Your task to perform on an android device: Open settings Image 0: 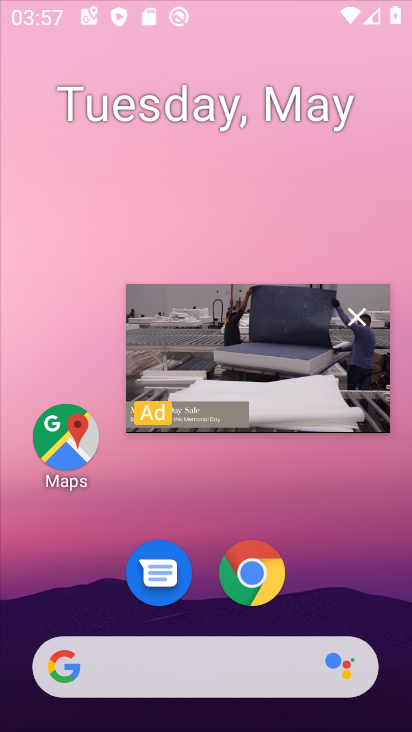
Step 0: click (226, 328)
Your task to perform on an android device: Open settings Image 1: 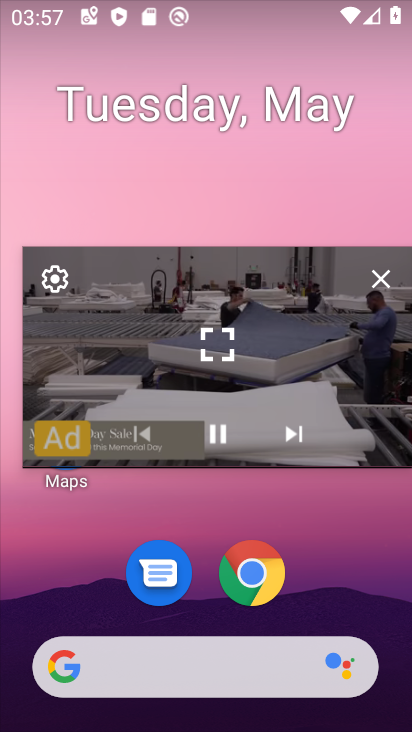
Step 1: click (262, 342)
Your task to perform on an android device: Open settings Image 2: 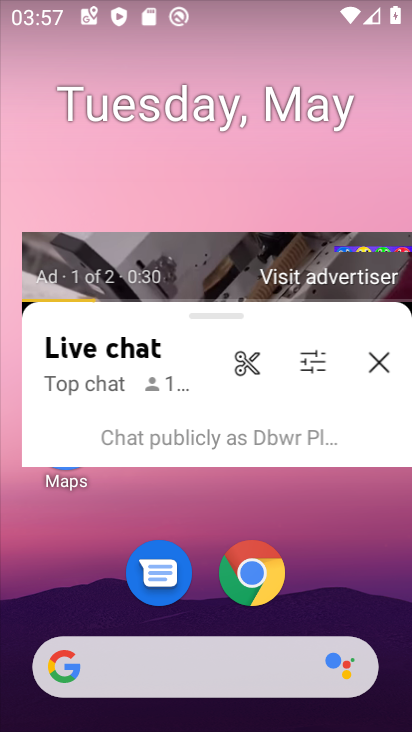
Step 2: click (231, 328)
Your task to perform on an android device: Open settings Image 3: 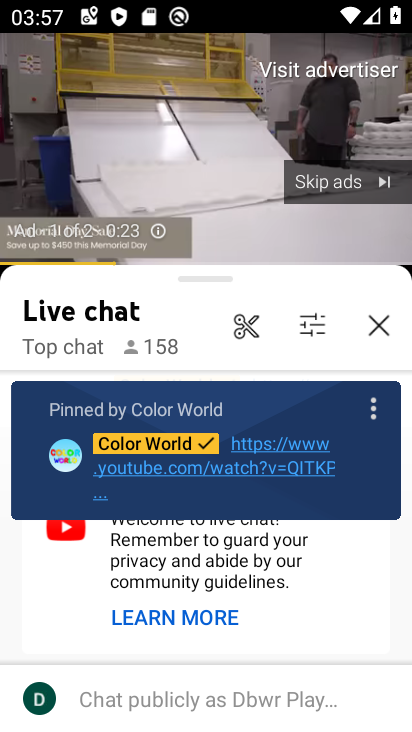
Step 3: click (140, 186)
Your task to perform on an android device: Open settings Image 4: 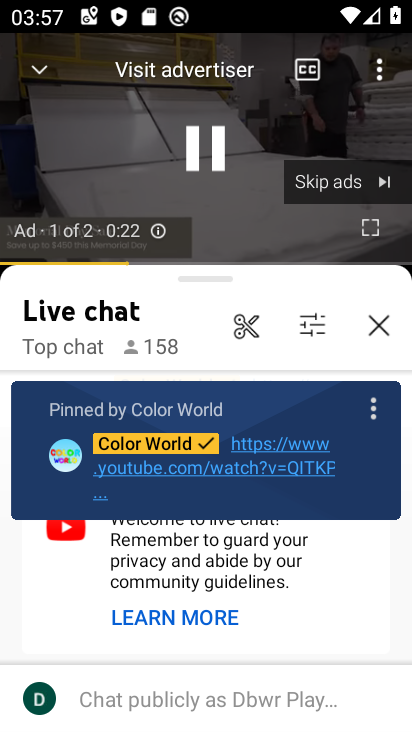
Step 4: click (210, 148)
Your task to perform on an android device: Open settings Image 5: 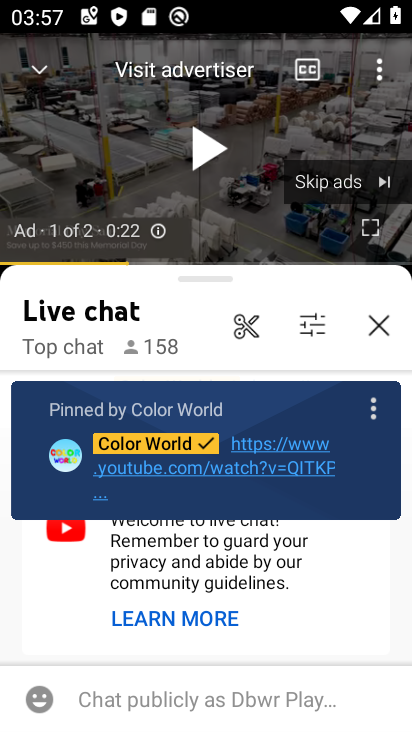
Step 5: press home button
Your task to perform on an android device: Open settings Image 6: 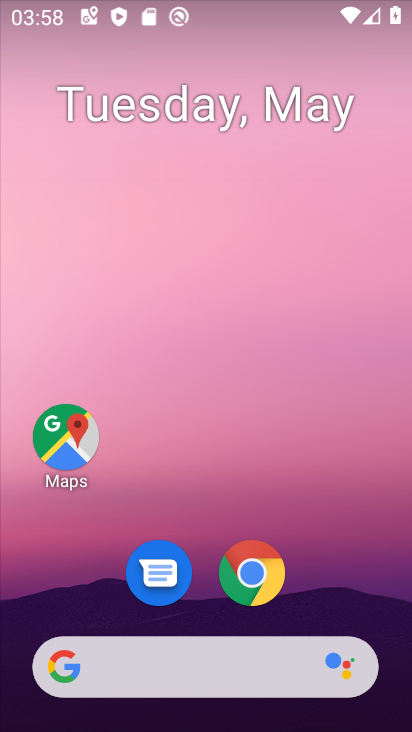
Step 6: drag from (199, 524) to (231, 13)
Your task to perform on an android device: Open settings Image 7: 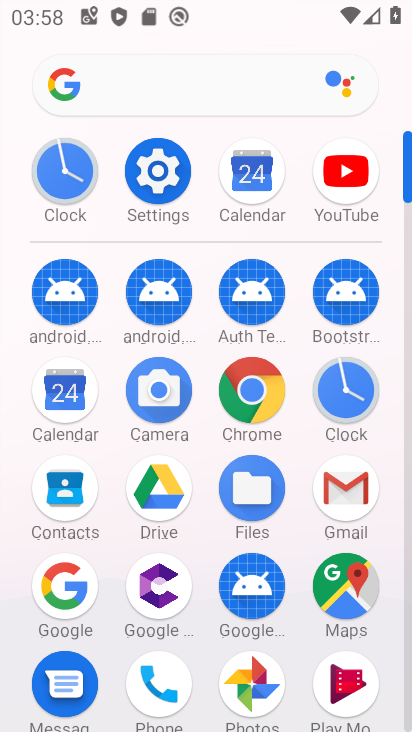
Step 7: click (150, 177)
Your task to perform on an android device: Open settings Image 8: 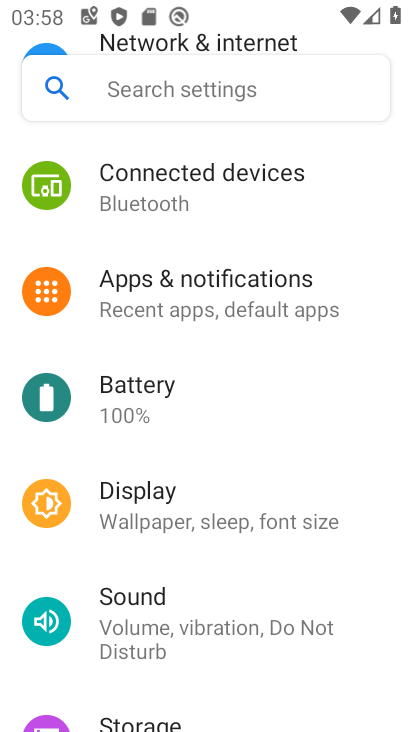
Step 8: task complete